Your task to perform on an android device: Go to calendar. Show me events next week Image 0: 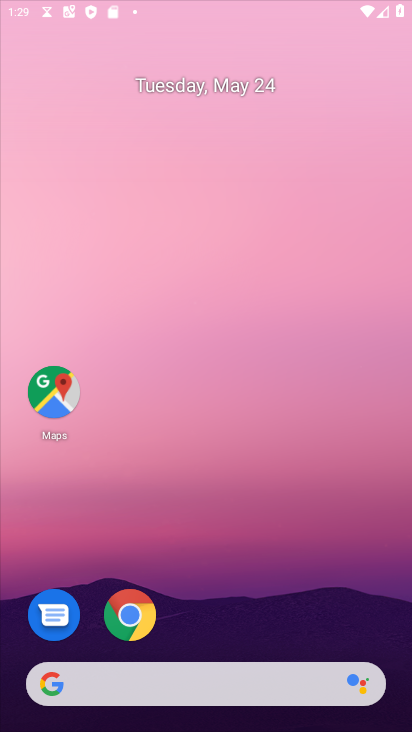
Step 0: press home button
Your task to perform on an android device: Go to calendar. Show me events next week Image 1: 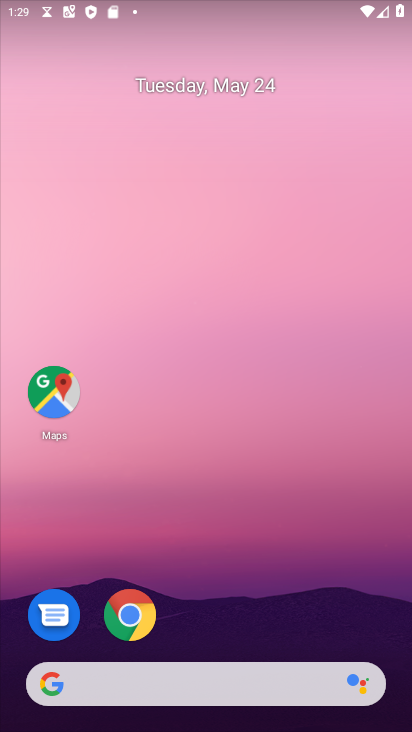
Step 1: press home button
Your task to perform on an android device: Go to calendar. Show me events next week Image 2: 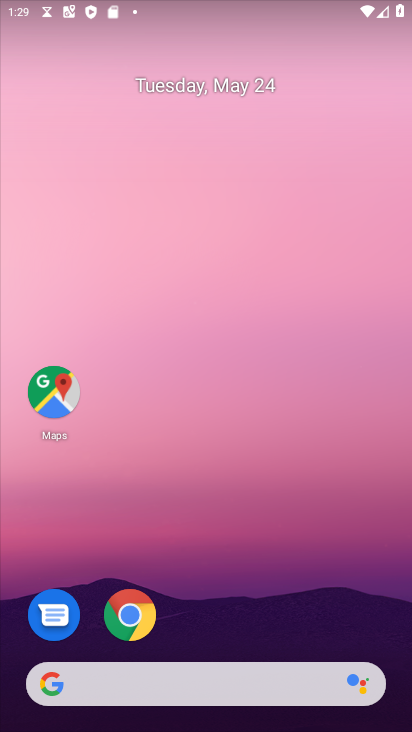
Step 2: drag from (211, 644) to (204, 56)
Your task to perform on an android device: Go to calendar. Show me events next week Image 3: 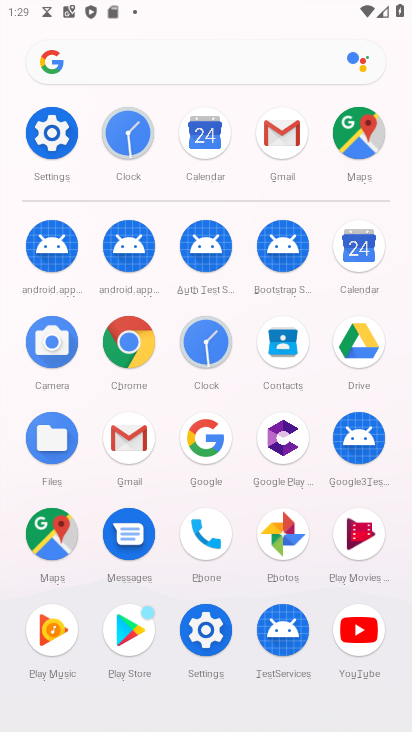
Step 3: click (357, 243)
Your task to perform on an android device: Go to calendar. Show me events next week Image 4: 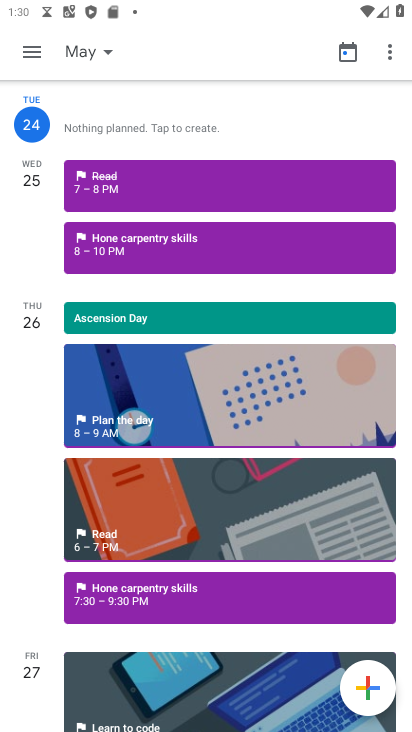
Step 4: click (34, 43)
Your task to perform on an android device: Go to calendar. Show me events next week Image 5: 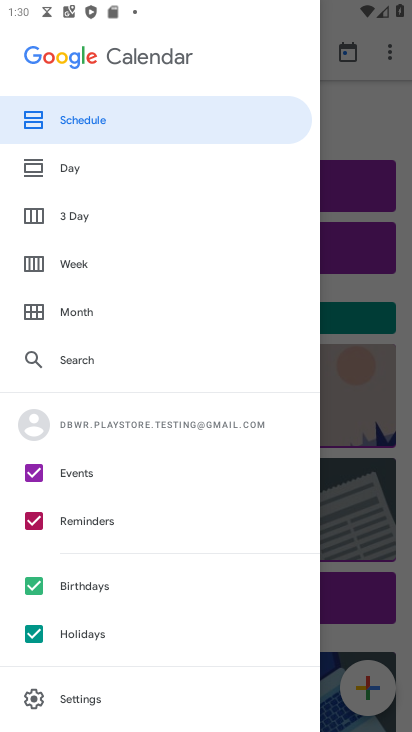
Step 5: click (67, 263)
Your task to perform on an android device: Go to calendar. Show me events next week Image 6: 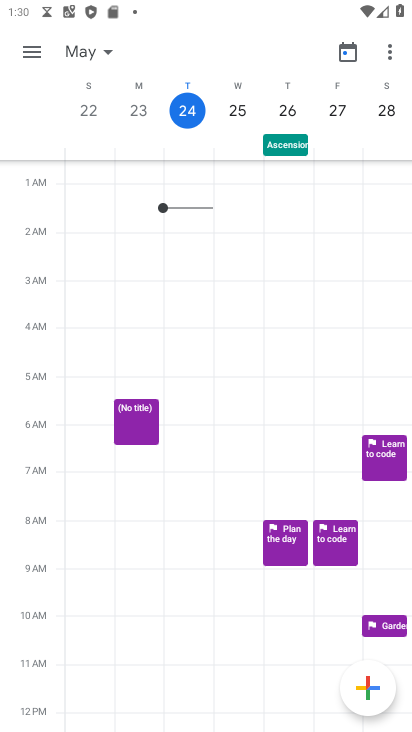
Step 6: click (378, 111)
Your task to perform on an android device: Go to calendar. Show me events next week Image 7: 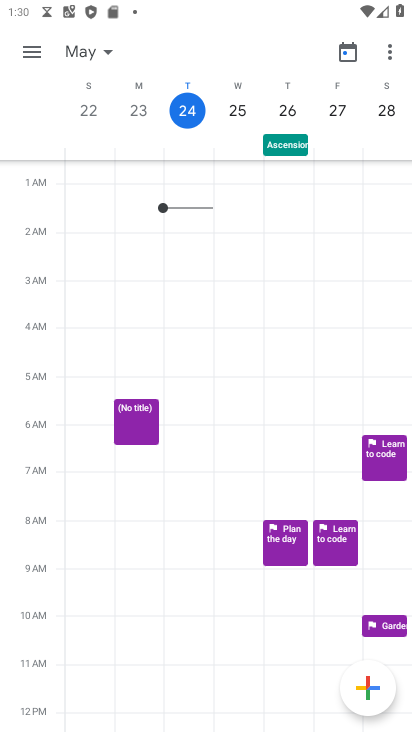
Step 7: drag from (376, 110) to (45, 112)
Your task to perform on an android device: Go to calendar. Show me events next week Image 8: 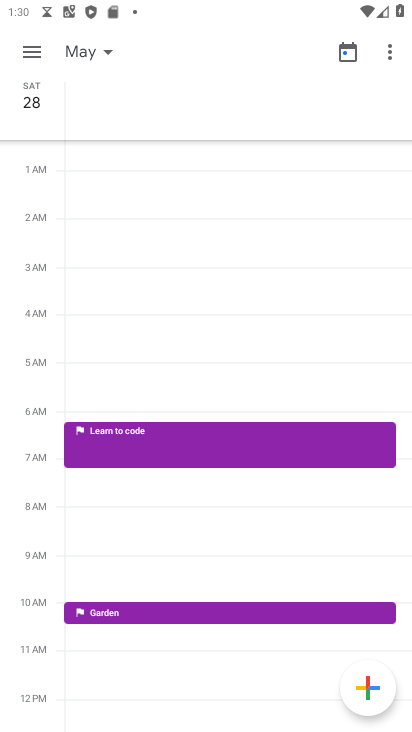
Step 8: click (44, 110)
Your task to perform on an android device: Go to calendar. Show me events next week Image 9: 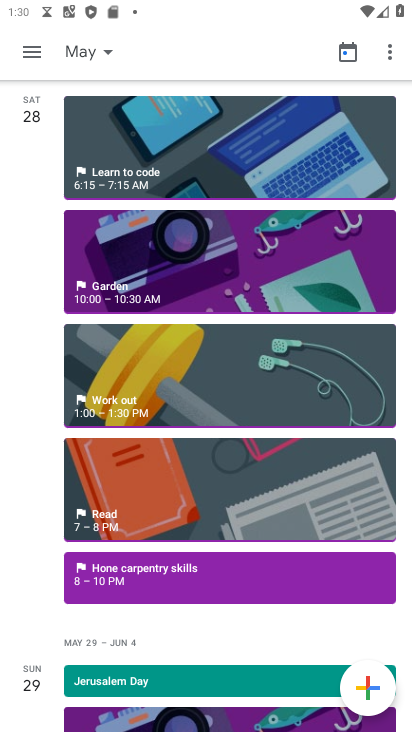
Step 9: click (27, 43)
Your task to perform on an android device: Go to calendar. Show me events next week Image 10: 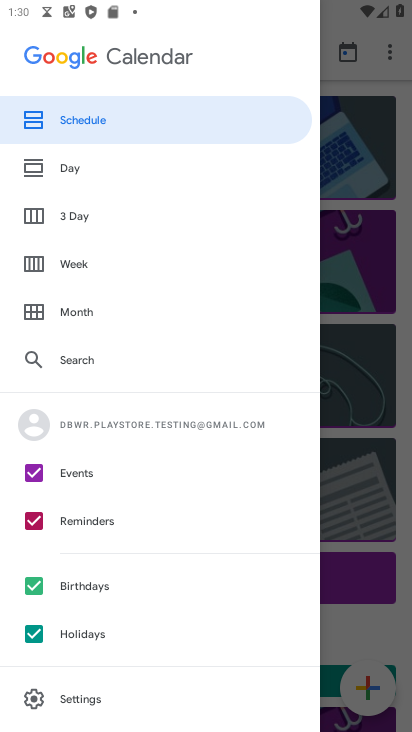
Step 10: click (105, 254)
Your task to perform on an android device: Go to calendar. Show me events next week Image 11: 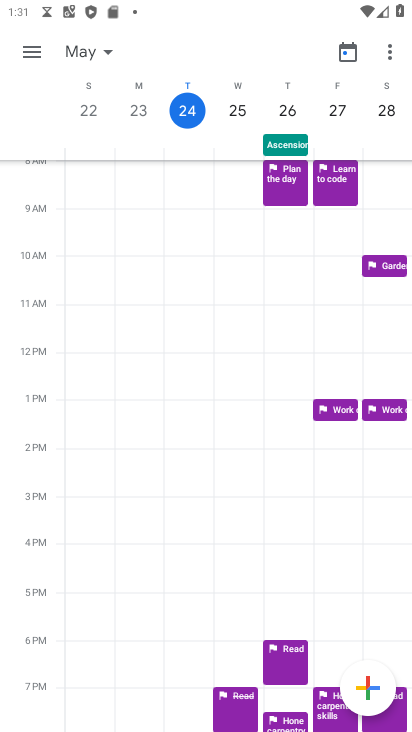
Step 11: drag from (379, 109) to (0, 117)
Your task to perform on an android device: Go to calendar. Show me events next week Image 12: 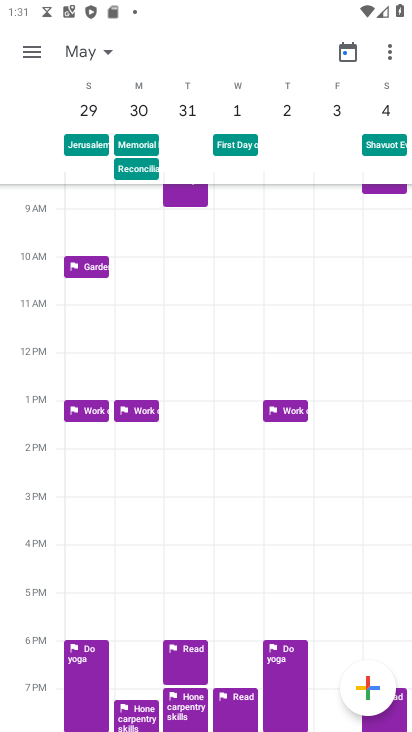
Step 12: click (86, 102)
Your task to perform on an android device: Go to calendar. Show me events next week Image 13: 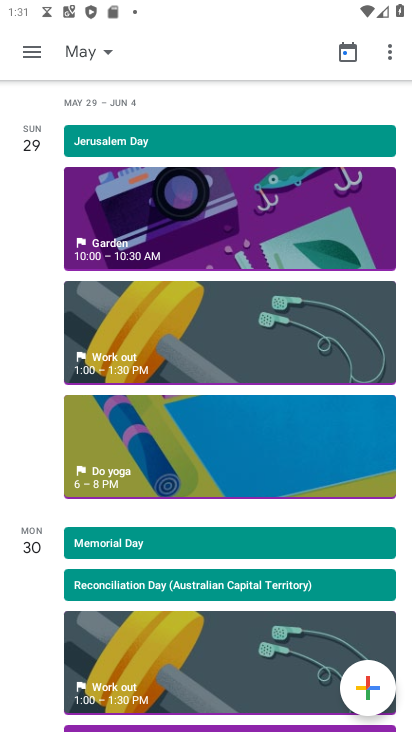
Step 13: task complete